Your task to perform on an android device: Go to network settings Image 0: 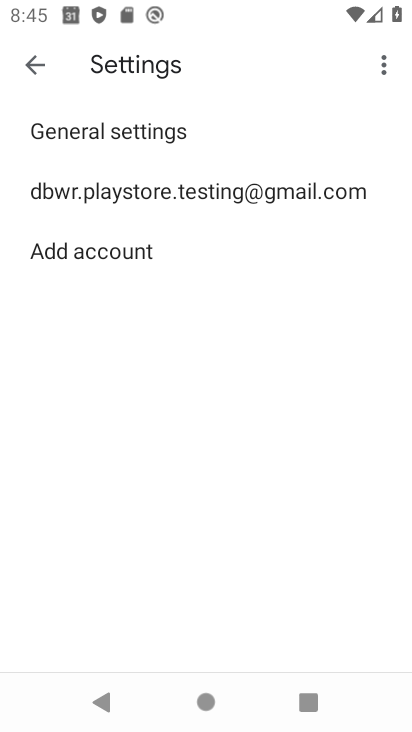
Step 0: press home button
Your task to perform on an android device: Go to network settings Image 1: 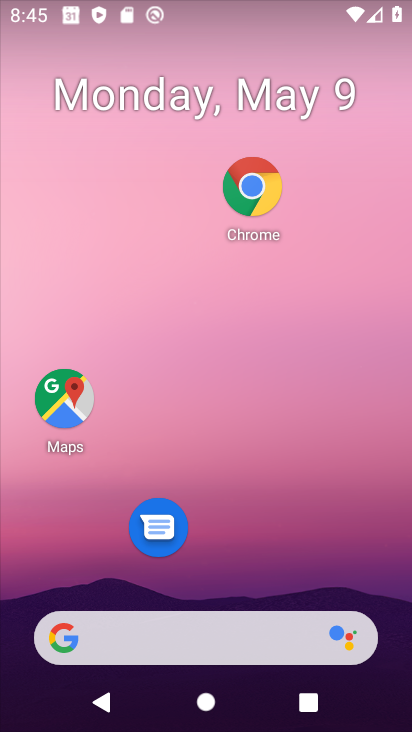
Step 1: drag from (207, 586) to (251, 76)
Your task to perform on an android device: Go to network settings Image 2: 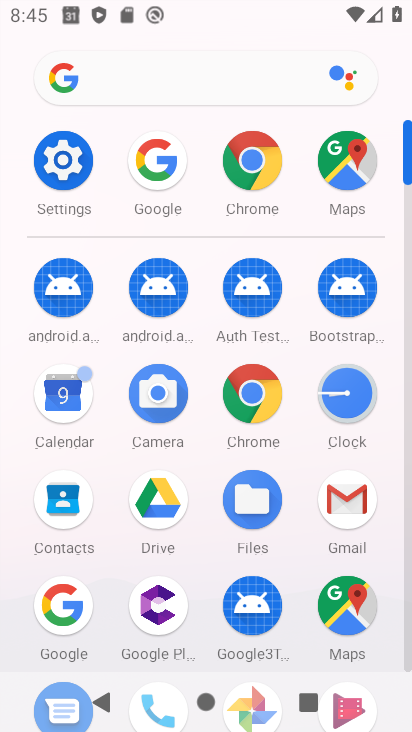
Step 2: click (59, 154)
Your task to perform on an android device: Go to network settings Image 3: 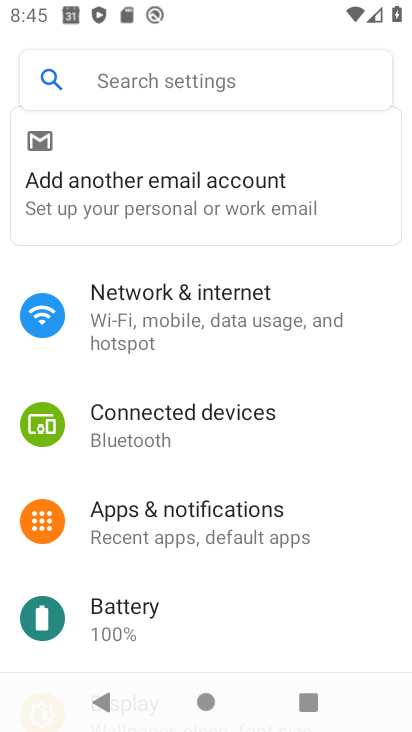
Step 3: click (187, 319)
Your task to perform on an android device: Go to network settings Image 4: 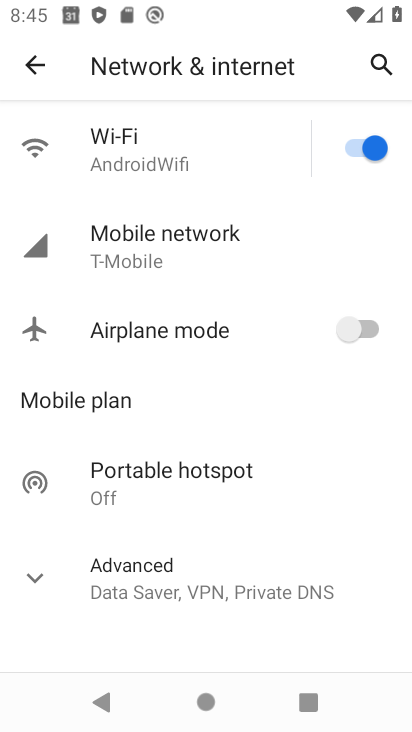
Step 4: click (38, 565)
Your task to perform on an android device: Go to network settings Image 5: 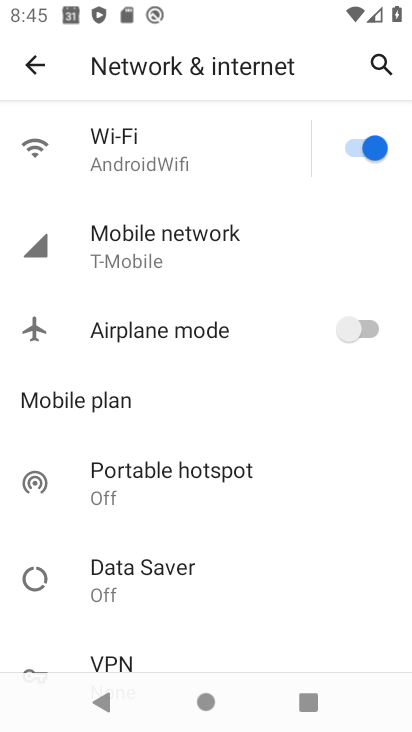
Step 5: task complete